Your task to perform on an android device: stop showing notifications on the lock screen Image 0: 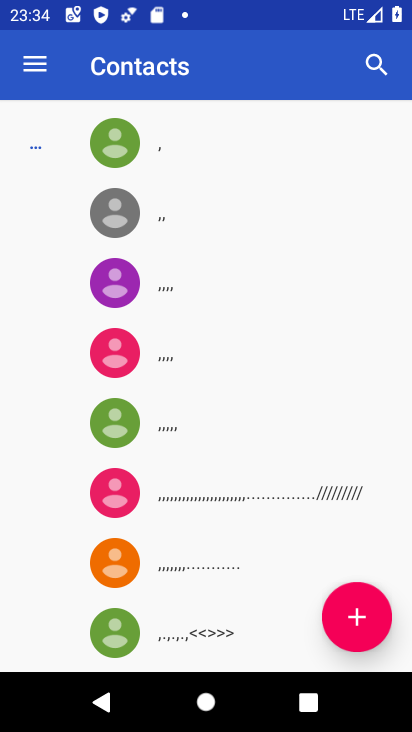
Step 0: press home button
Your task to perform on an android device: stop showing notifications on the lock screen Image 1: 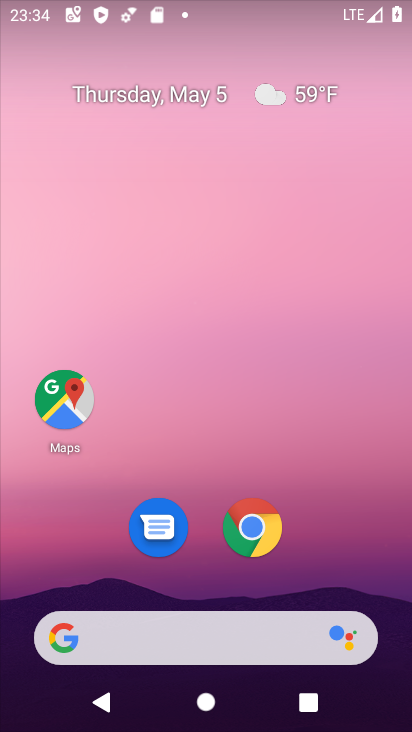
Step 1: drag from (214, 573) to (353, 10)
Your task to perform on an android device: stop showing notifications on the lock screen Image 2: 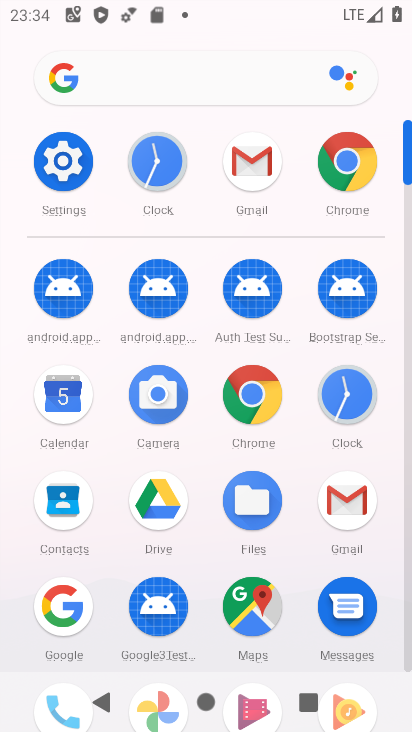
Step 2: click (70, 157)
Your task to perform on an android device: stop showing notifications on the lock screen Image 3: 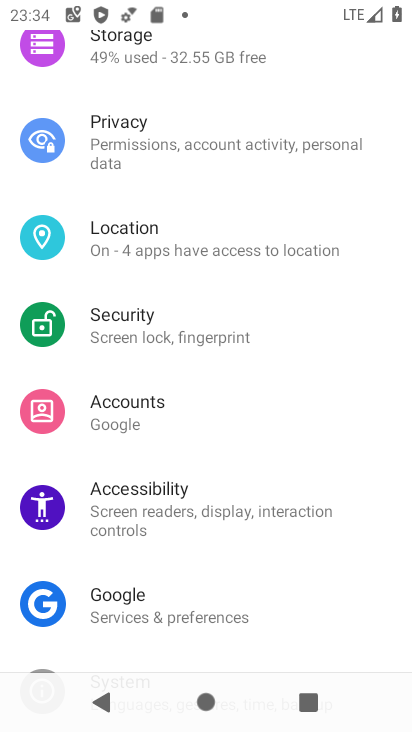
Step 3: drag from (168, 125) to (169, 468)
Your task to perform on an android device: stop showing notifications on the lock screen Image 4: 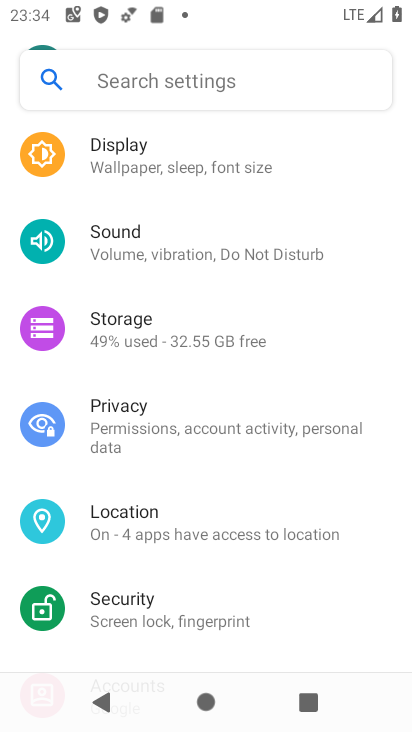
Step 4: drag from (131, 215) to (151, 610)
Your task to perform on an android device: stop showing notifications on the lock screen Image 5: 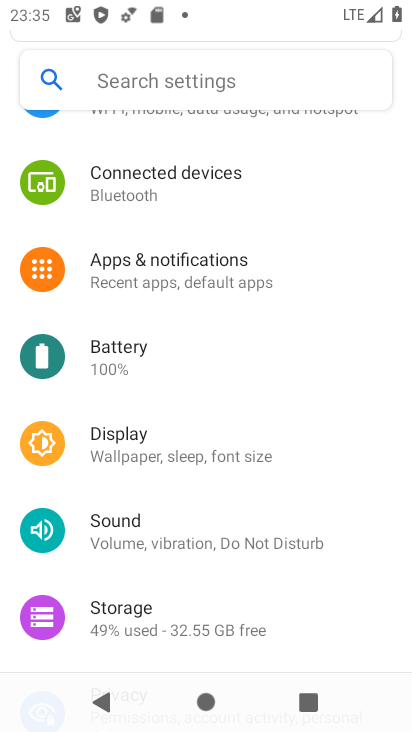
Step 5: click (169, 266)
Your task to perform on an android device: stop showing notifications on the lock screen Image 6: 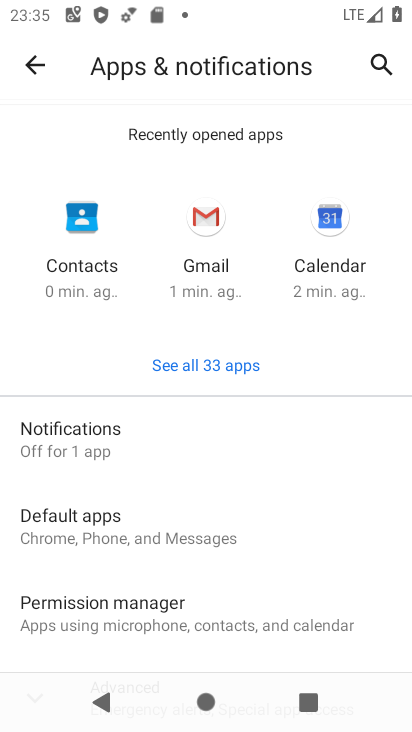
Step 6: drag from (181, 537) to (185, 357)
Your task to perform on an android device: stop showing notifications on the lock screen Image 7: 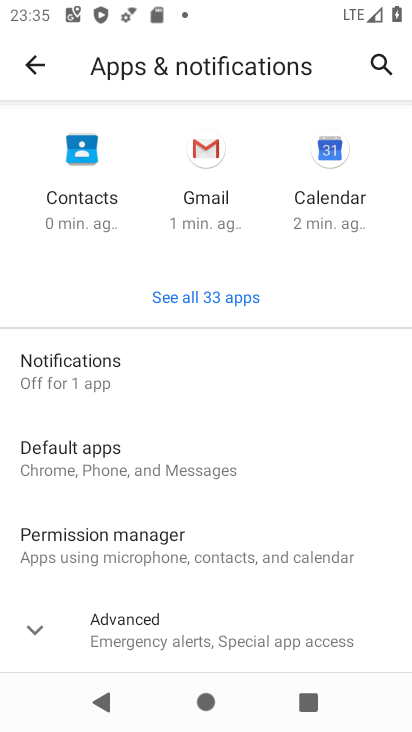
Step 7: click (91, 367)
Your task to perform on an android device: stop showing notifications on the lock screen Image 8: 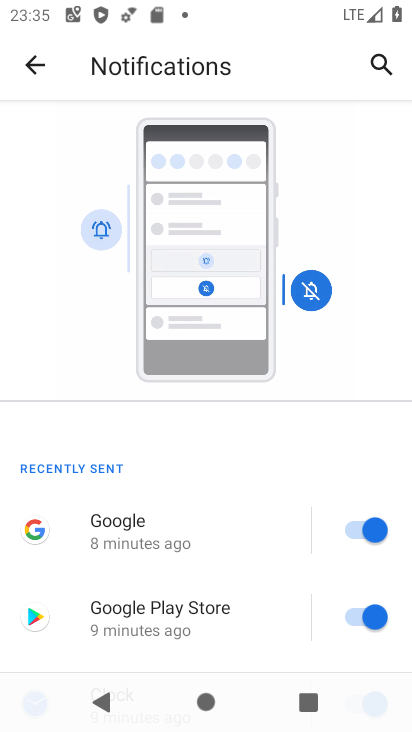
Step 8: drag from (136, 571) to (170, 370)
Your task to perform on an android device: stop showing notifications on the lock screen Image 9: 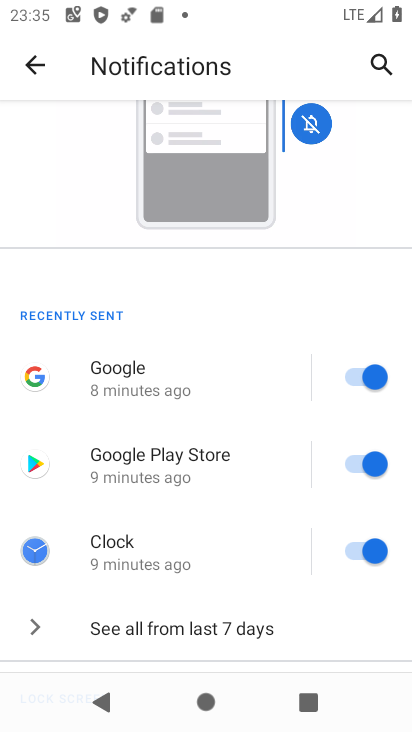
Step 9: drag from (180, 570) to (222, 239)
Your task to perform on an android device: stop showing notifications on the lock screen Image 10: 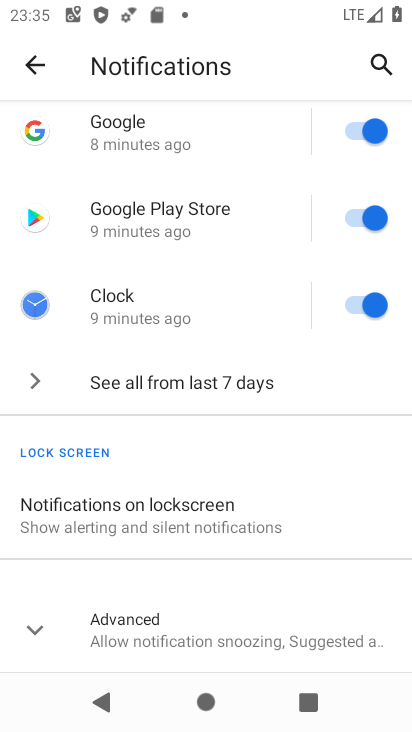
Step 10: click (174, 513)
Your task to perform on an android device: stop showing notifications on the lock screen Image 11: 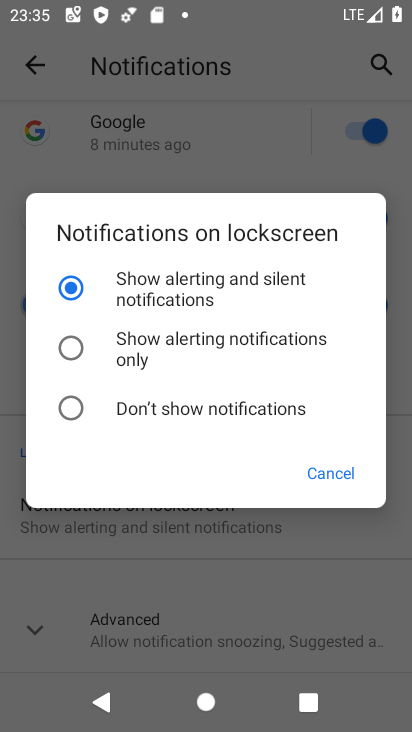
Step 11: click (164, 418)
Your task to perform on an android device: stop showing notifications on the lock screen Image 12: 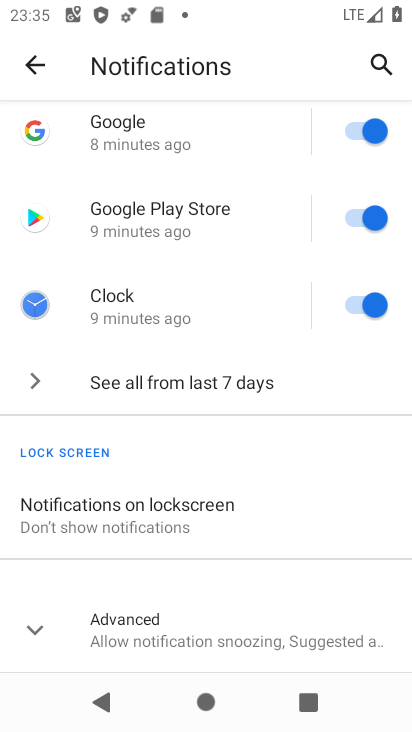
Step 12: task complete